Your task to perform on an android device: open sync settings in chrome Image 0: 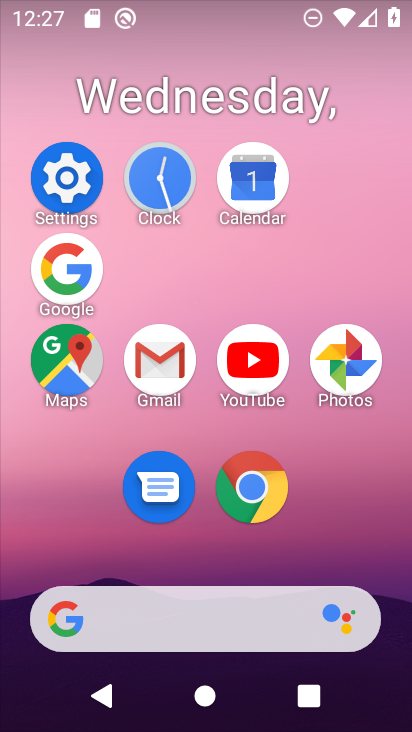
Step 0: click (233, 490)
Your task to perform on an android device: open sync settings in chrome Image 1: 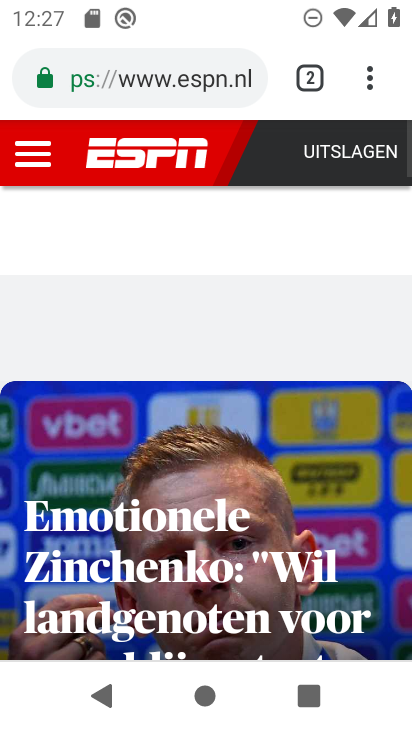
Step 1: click (360, 62)
Your task to perform on an android device: open sync settings in chrome Image 2: 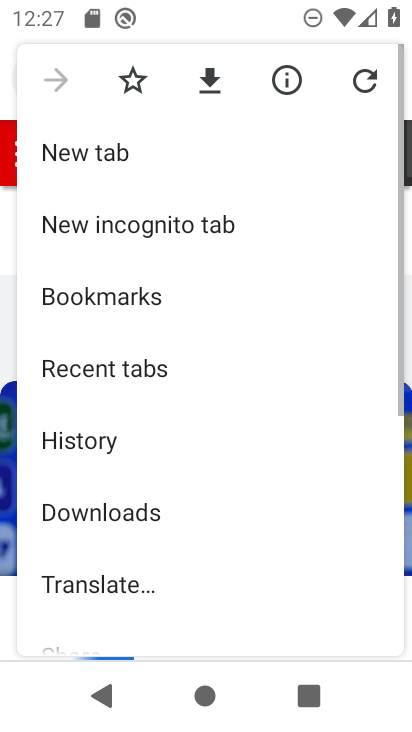
Step 2: drag from (236, 538) to (213, 151)
Your task to perform on an android device: open sync settings in chrome Image 3: 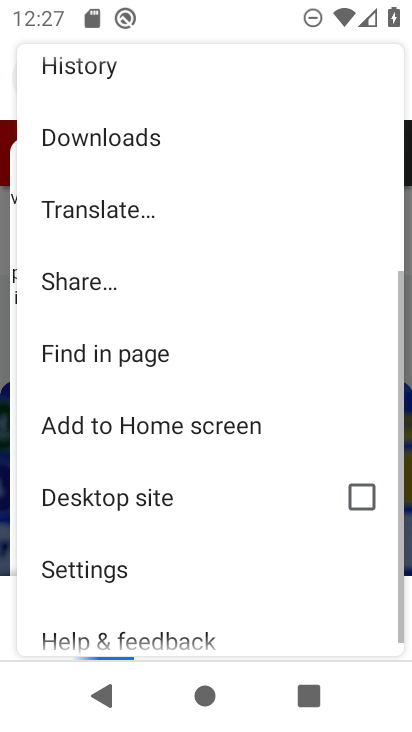
Step 3: click (151, 557)
Your task to perform on an android device: open sync settings in chrome Image 4: 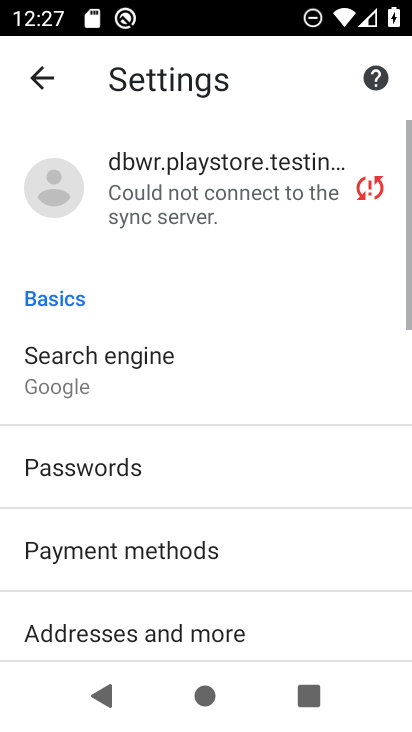
Step 4: drag from (150, 554) to (155, 168)
Your task to perform on an android device: open sync settings in chrome Image 5: 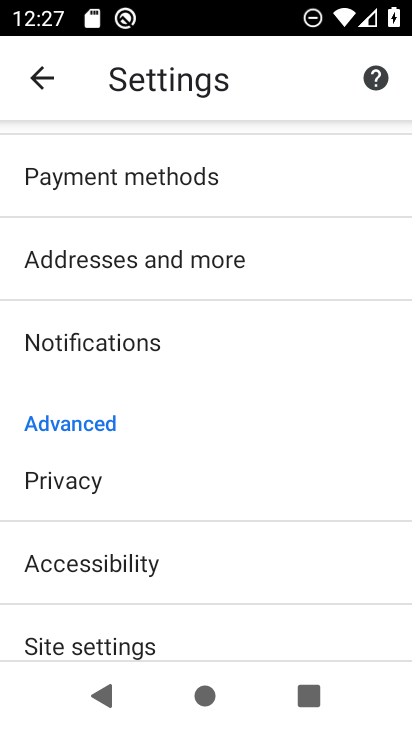
Step 5: drag from (218, 546) to (177, 174)
Your task to perform on an android device: open sync settings in chrome Image 6: 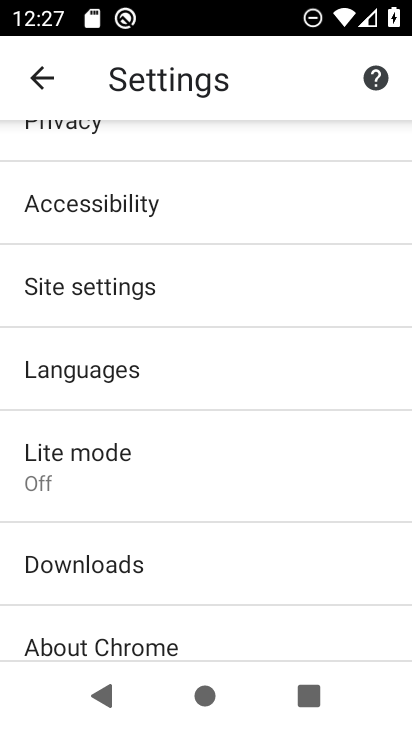
Step 6: click (123, 304)
Your task to perform on an android device: open sync settings in chrome Image 7: 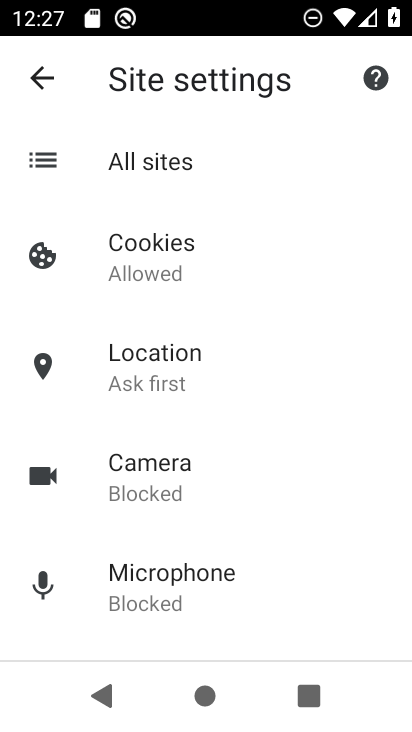
Step 7: drag from (223, 517) to (282, 108)
Your task to perform on an android device: open sync settings in chrome Image 8: 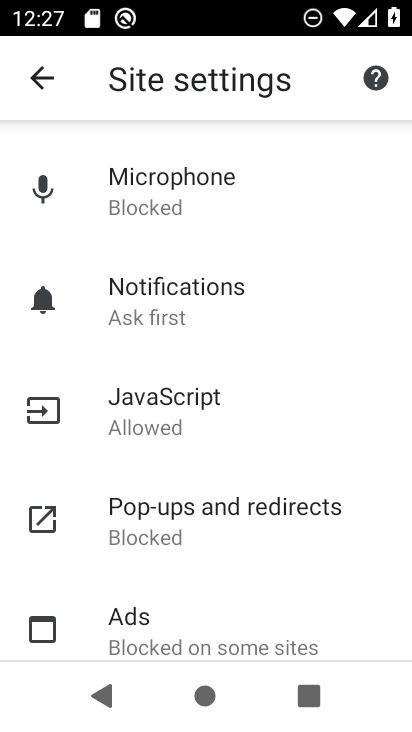
Step 8: drag from (225, 564) to (229, 231)
Your task to perform on an android device: open sync settings in chrome Image 9: 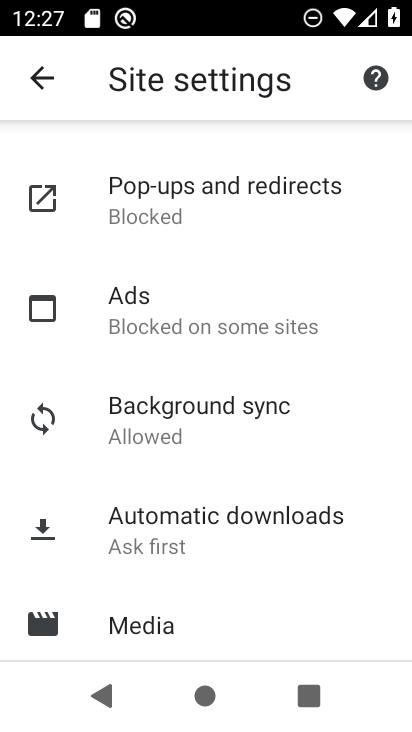
Step 9: click (253, 416)
Your task to perform on an android device: open sync settings in chrome Image 10: 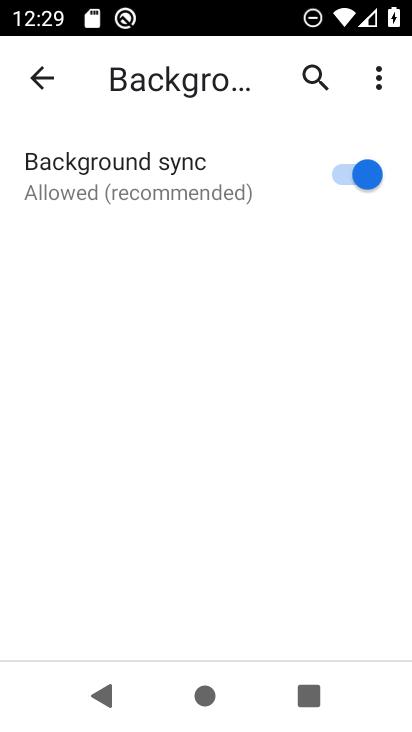
Step 10: task complete